Your task to perform on an android device: Open Yahoo.com Image 0: 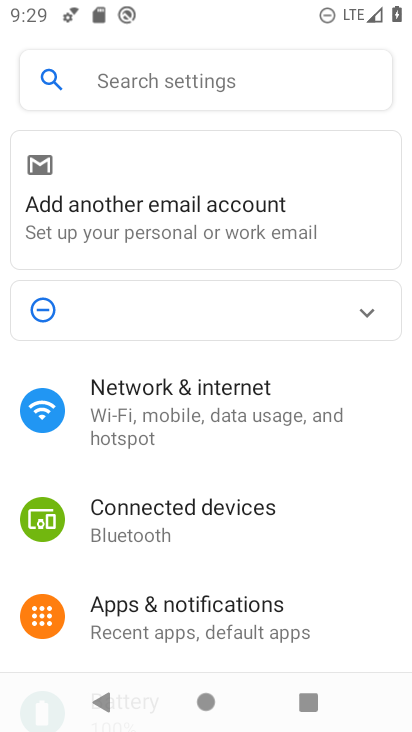
Step 0: press back button
Your task to perform on an android device: Open Yahoo.com Image 1: 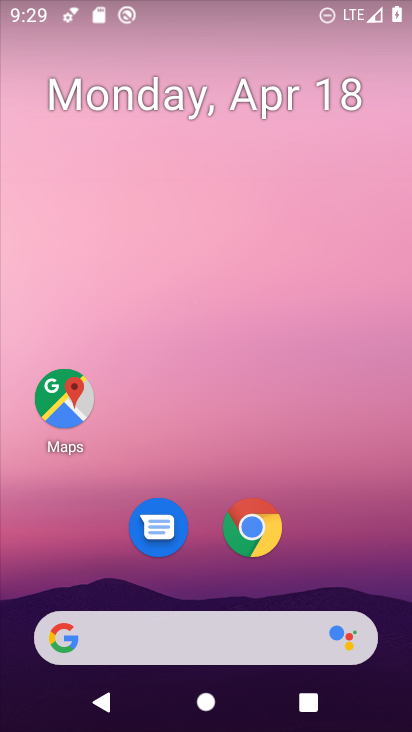
Step 1: drag from (328, 396) to (249, 25)
Your task to perform on an android device: Open Yahoo.com Image 2: 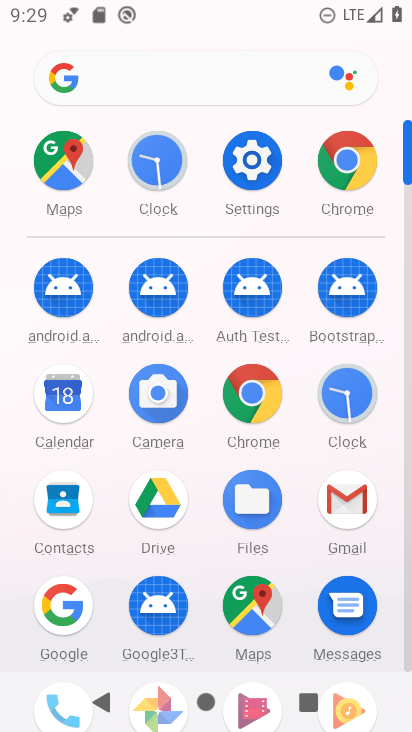
Step 2: click (248, 386)
Your task to perform on an android device: Open Yahoo.com Image 3: 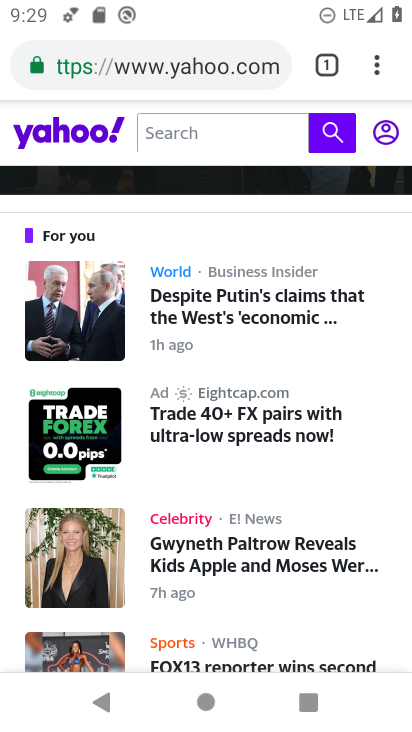
Step 3: task complete